Your task to perform on an android device: Is it going to rain today? Image 0: 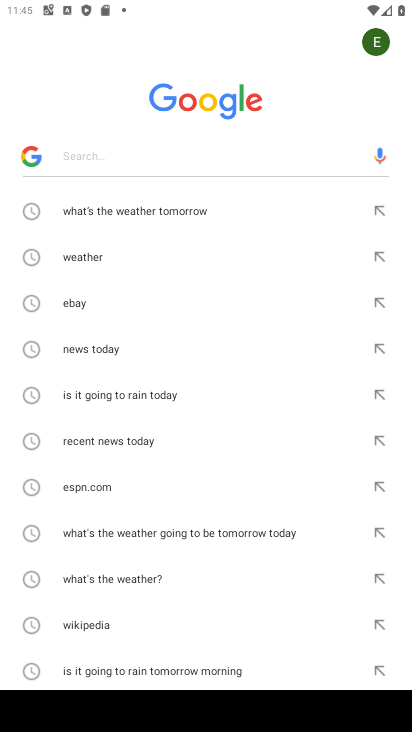
Step 0: press home button
Your task to perform on an android device: Is it going to rain today? Image 1: 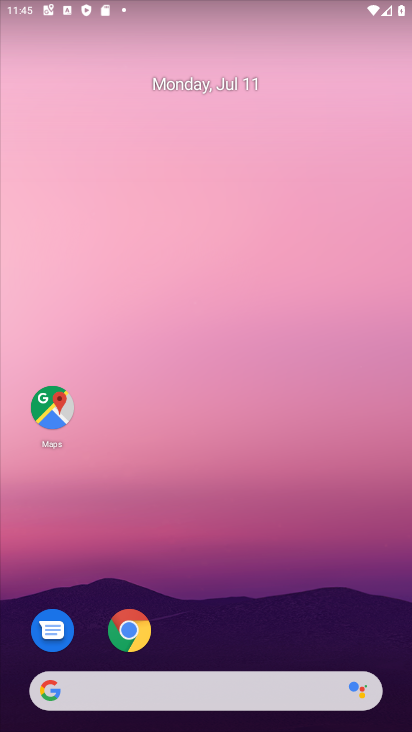
Step 1: drag from (2, 334) to (389, 333)
Your task to perform on an android device: Is it going to rain today? Image 2: 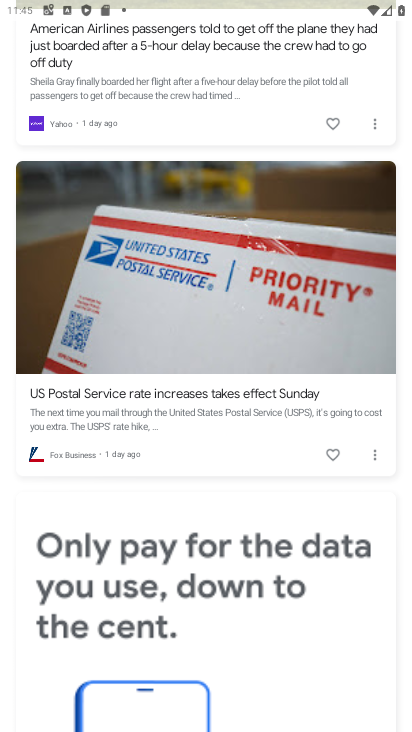
Step 2: drag from (226, 145) to (177, 538)
Your task to perform on an android device: Is it going to rain today? Image 3: 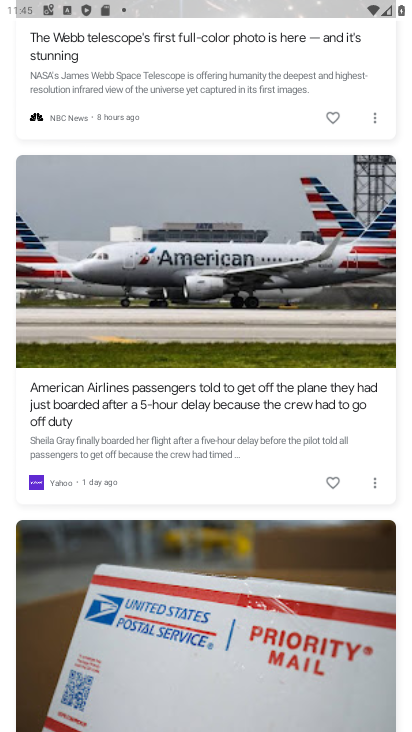
Step 3: drag from (221, 138) to (259, 607)
Your task to perform on an android device: Is it going to rain today? Image 4: 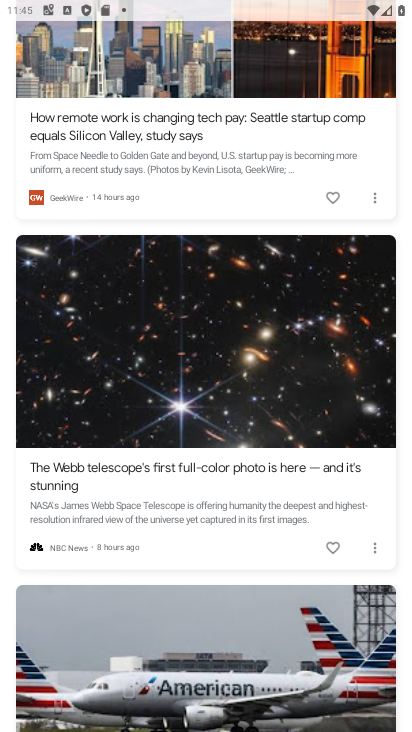
Step 4: drag from (237, 218) to (260, 648)
Your task to perform on an android device: Is it going to rain today? Image 5: 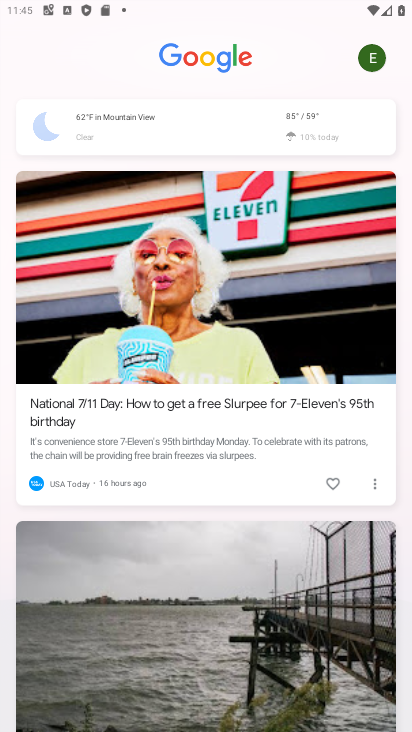
Step 5: click (299, 119)
Your task to perform on an android device: Is it going to rain today? Image 6: 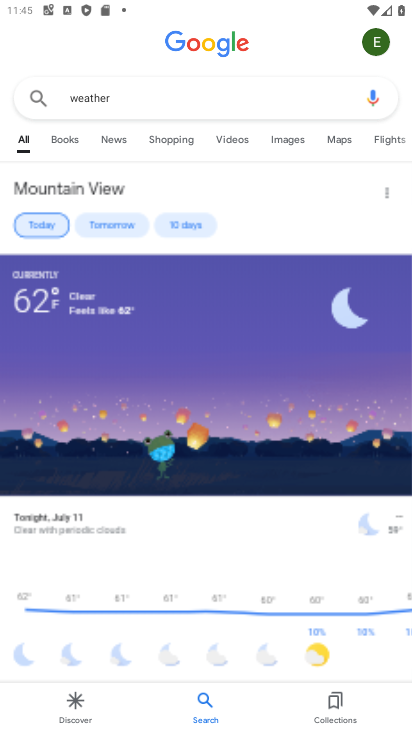
Step 6: task complete